Your task to perform on an android device: Go to eBay Image 0: 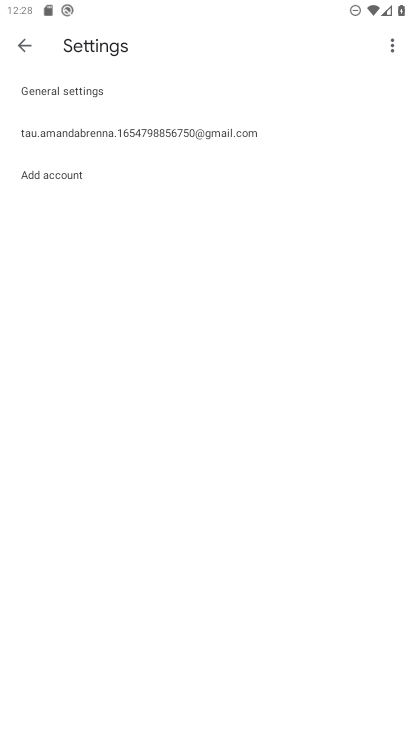
Step 0: click (65, 97)
Your task to perform on an android device: Go to eBay Image 1: 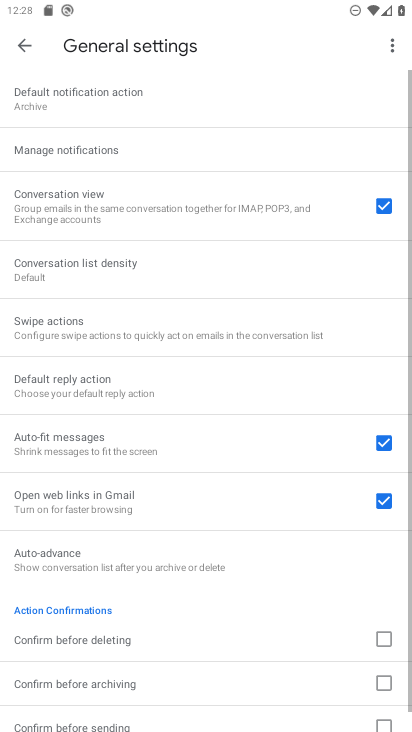
Step 1: click (9, 52)
Your task to perform on an android device: Go to eBay Image 2: 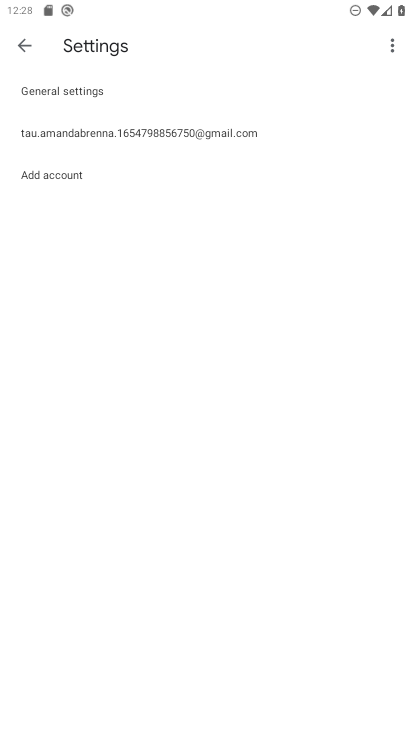
Step 2: press home button
Your task to perform on an android device: Go to eBay Image 3: 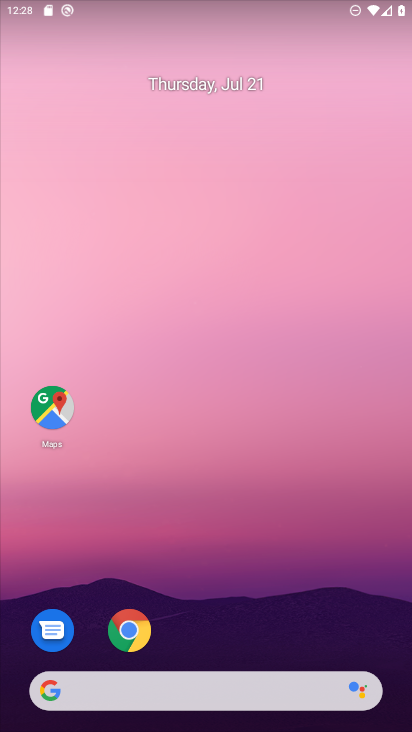
Step 3: click (136, 619)
Your task to perform on an android device: Go to eBay Image 4: 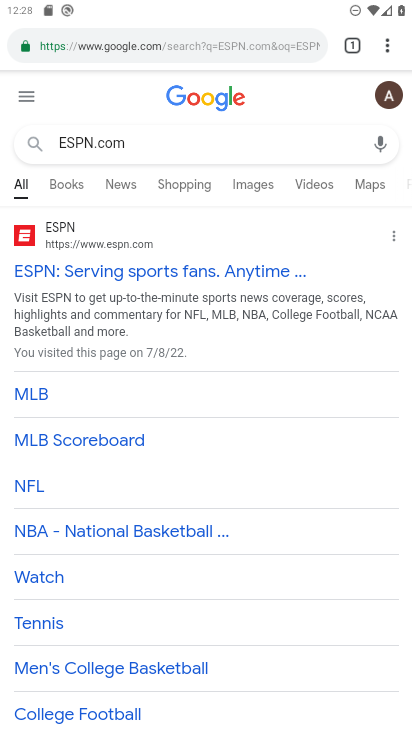
Step 4: click (248, 36)
Your task to perform on an android device: Go to eBay Image 5: 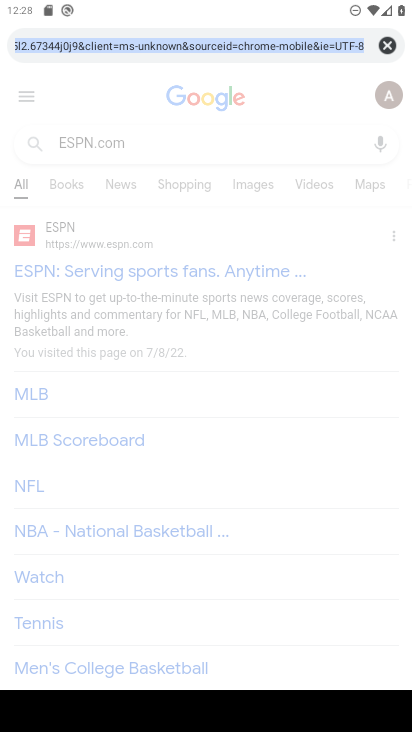
Step 5: click (388, 40)
Your task to perform on an android device: Go to eBay Image 6: 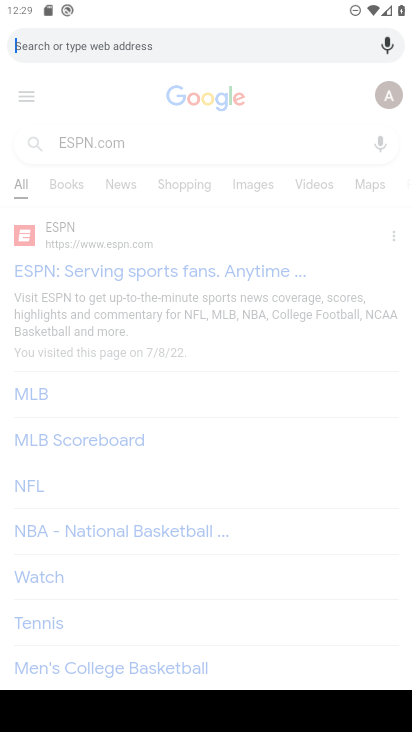
Step 6: type "eBay"
Your task to perform on an android device: Go to eBay Image 7: 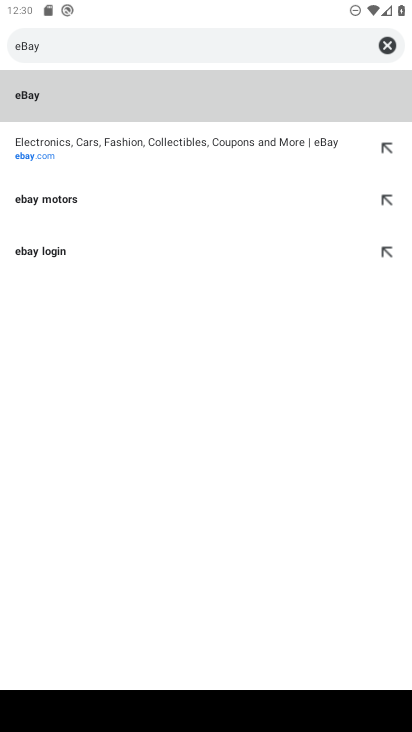
Step 7: click (52, 94)
Your task to perform on an android device: Go to eBay Image 8: 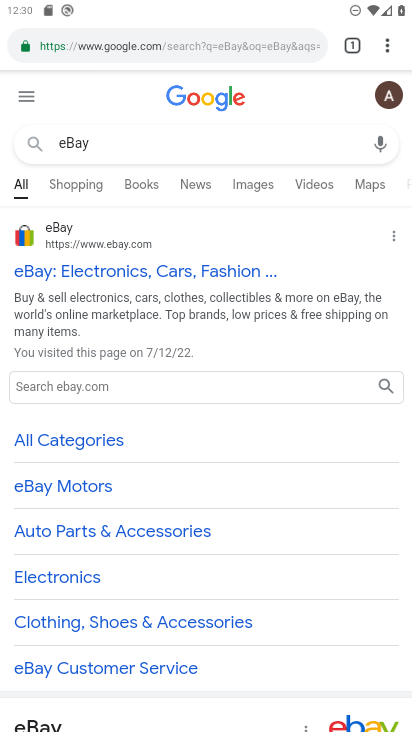
Step 8: task complete